Your task to perform on an android device: Go to Reddit.com Image 0: 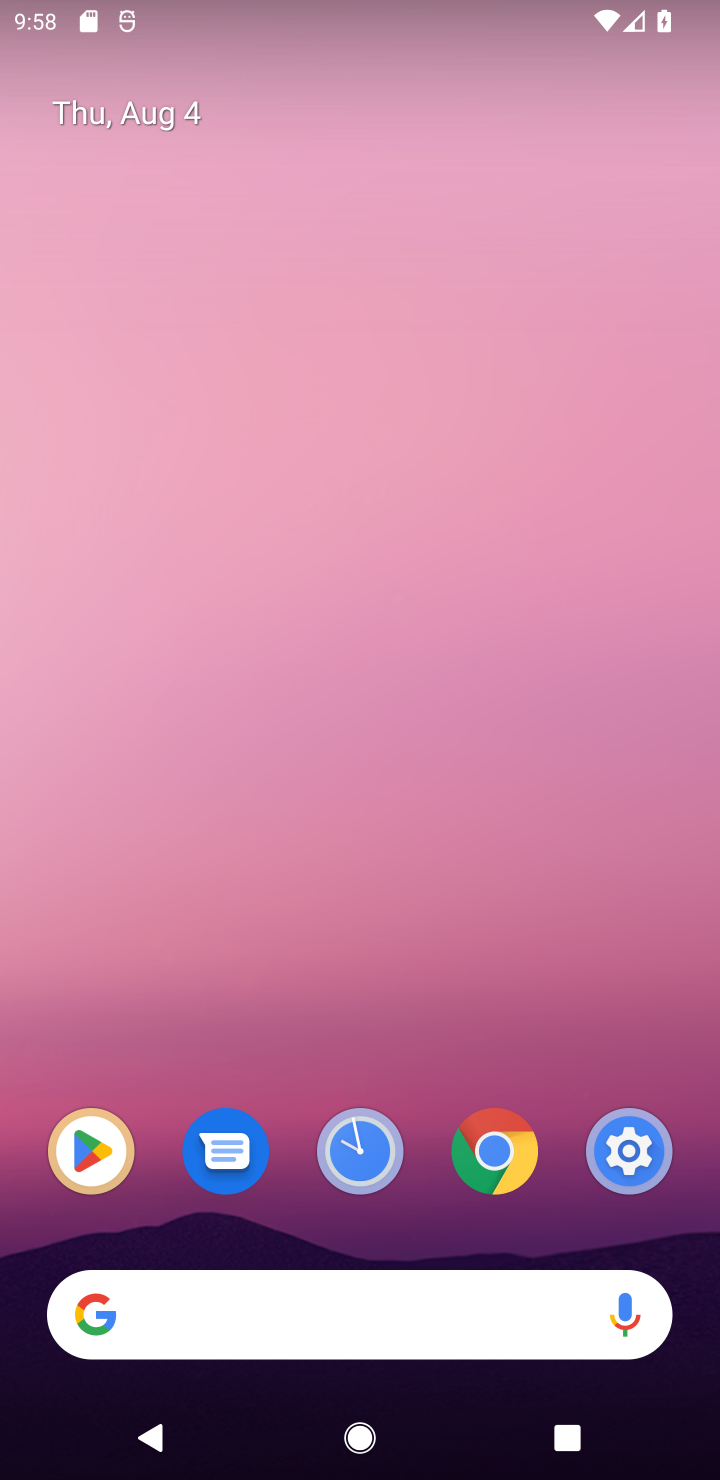
Step 0: click (82, 1314)
Your task to perform on an android device: Go to Reddit.com Image 1: 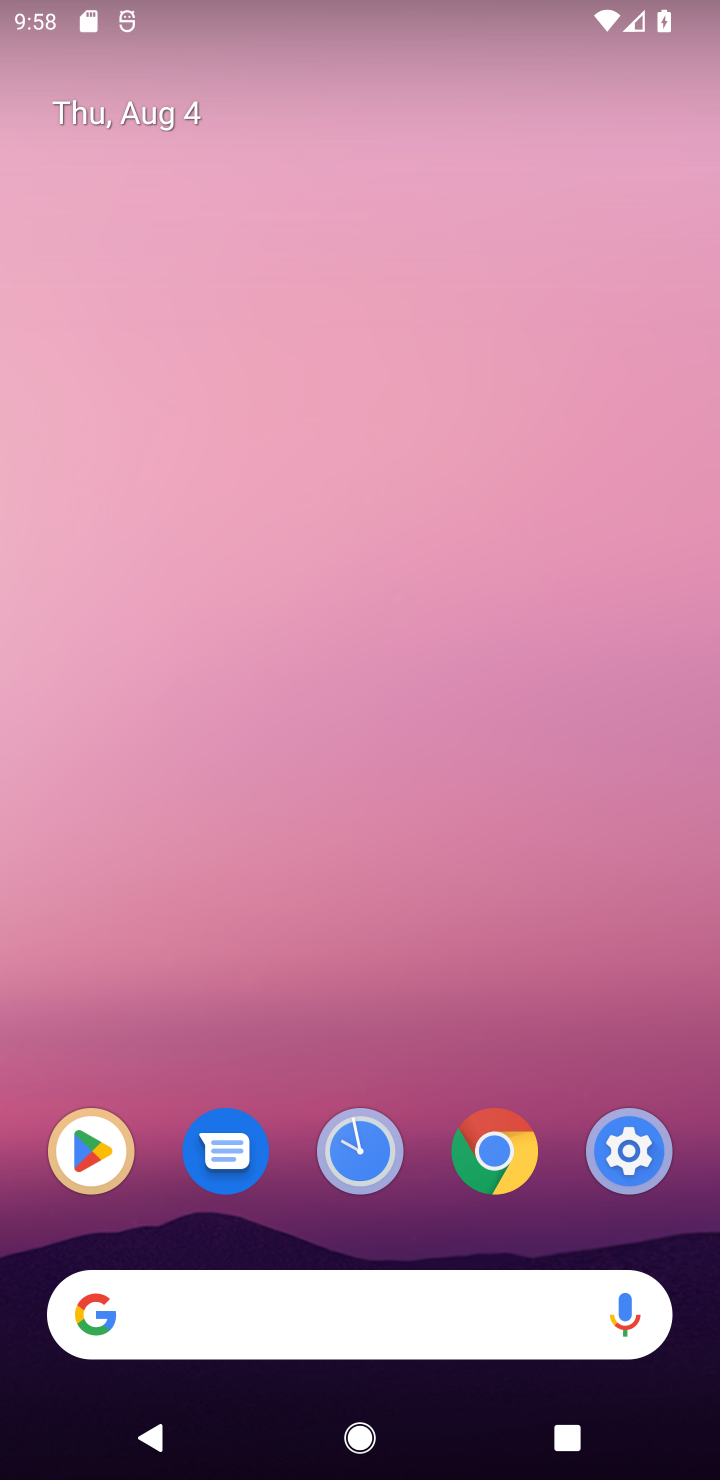
Step 1: click (84, 1317)
Your task to perform on an android device: Go to Reddit.com Image 2: 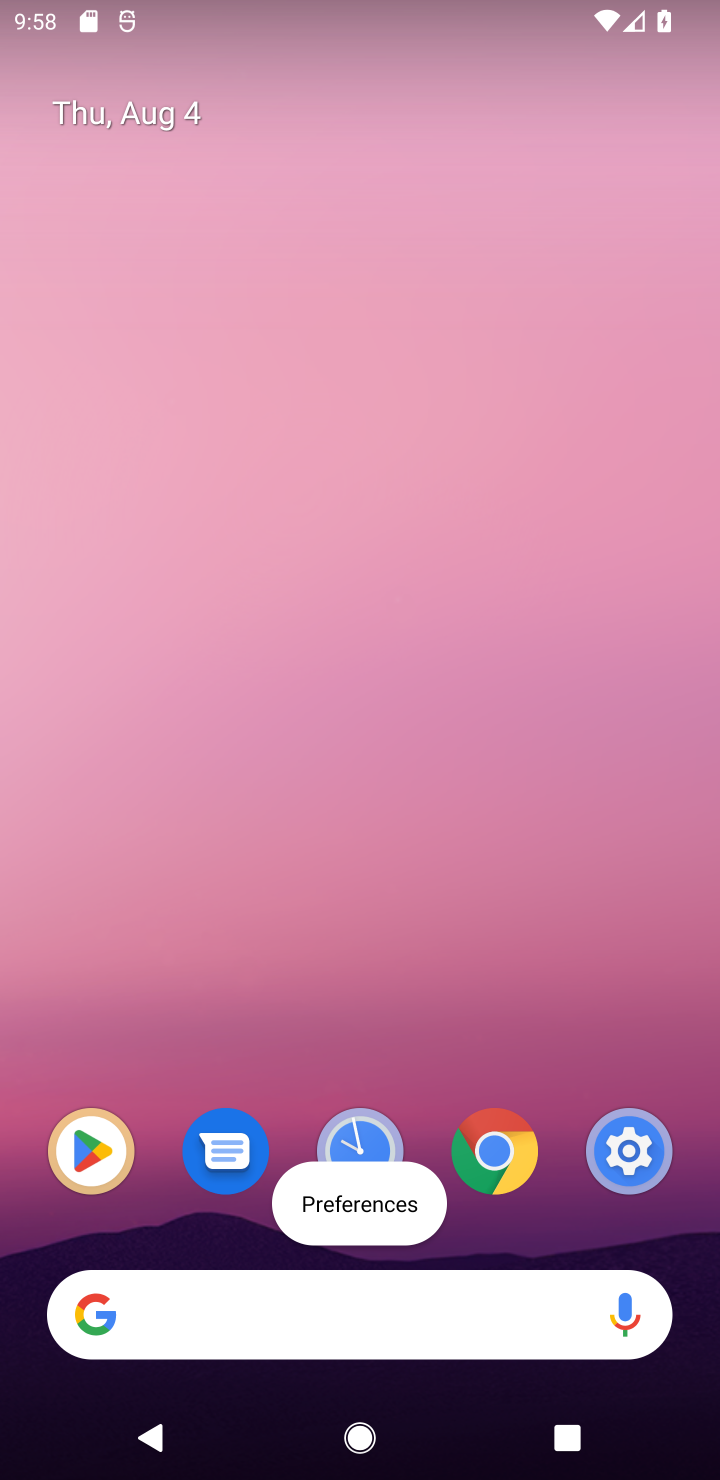
Step 2: click (110, 1317)
Your task to perform on an android device: Go to Reddit.com Image 3: 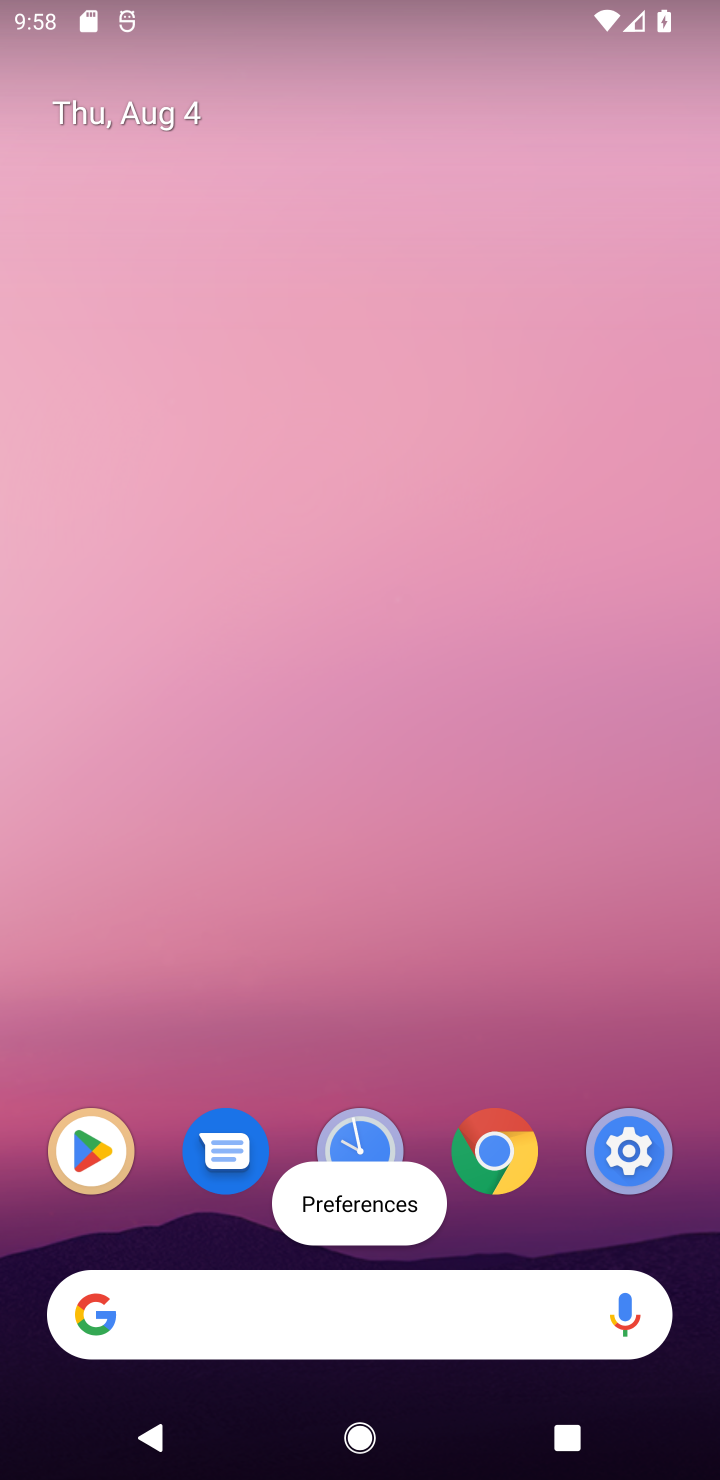
Step 3: click (86, 1325)
Your task to perform on an android device: Go to Reddit.com Image 4: 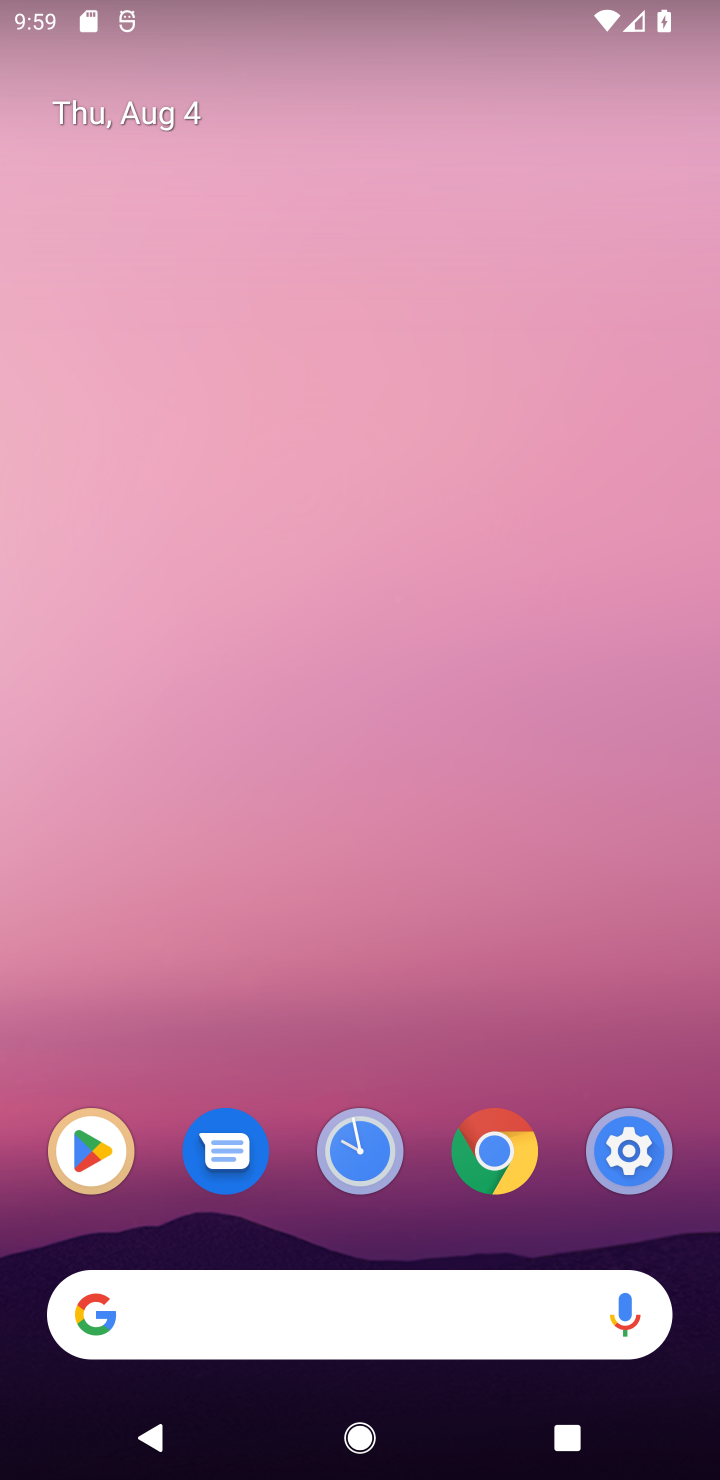
Step 4: click (85, 1309)
Your task to perform on an android device: Go to Reddit.com Image 5: 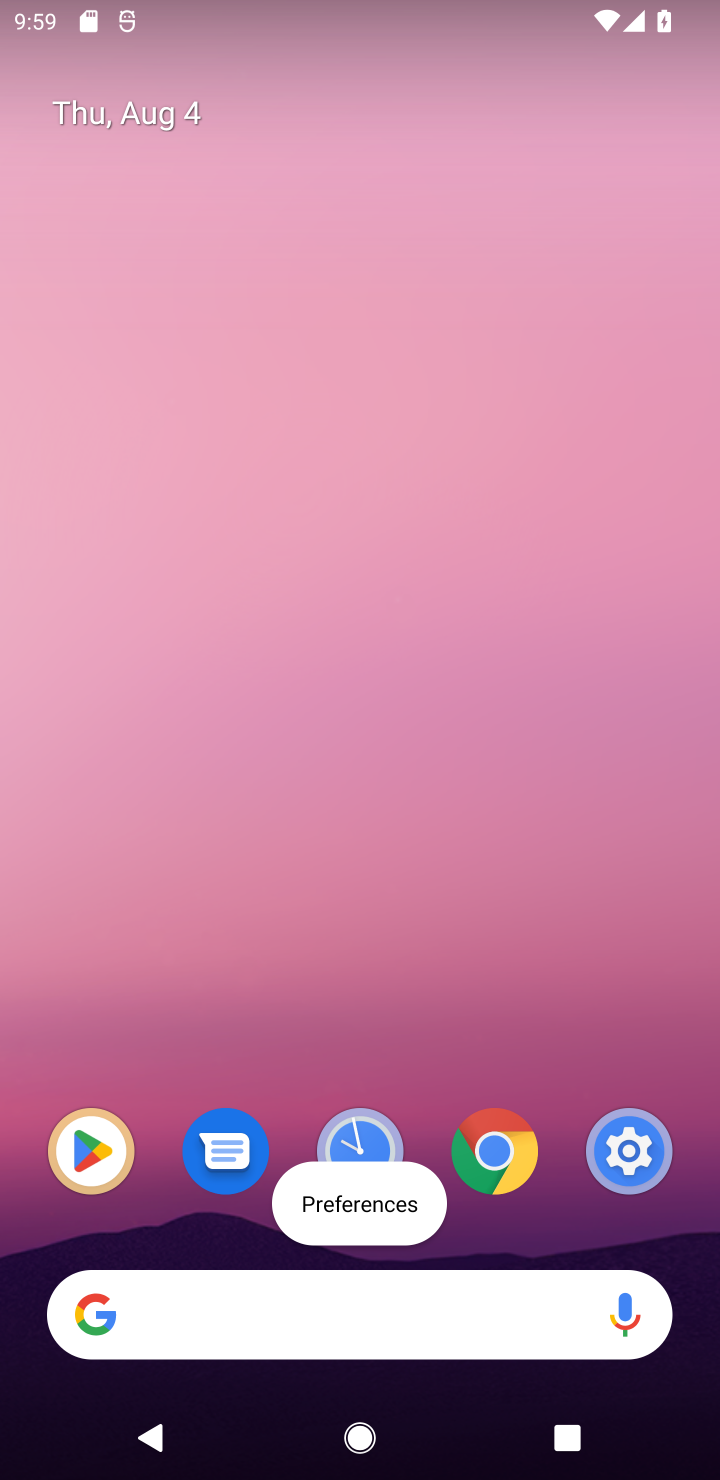
Step 5: drag from (508, 1238) to (337, 260)
Your task to perform on an android device: Go to Reddit.com Image 6: 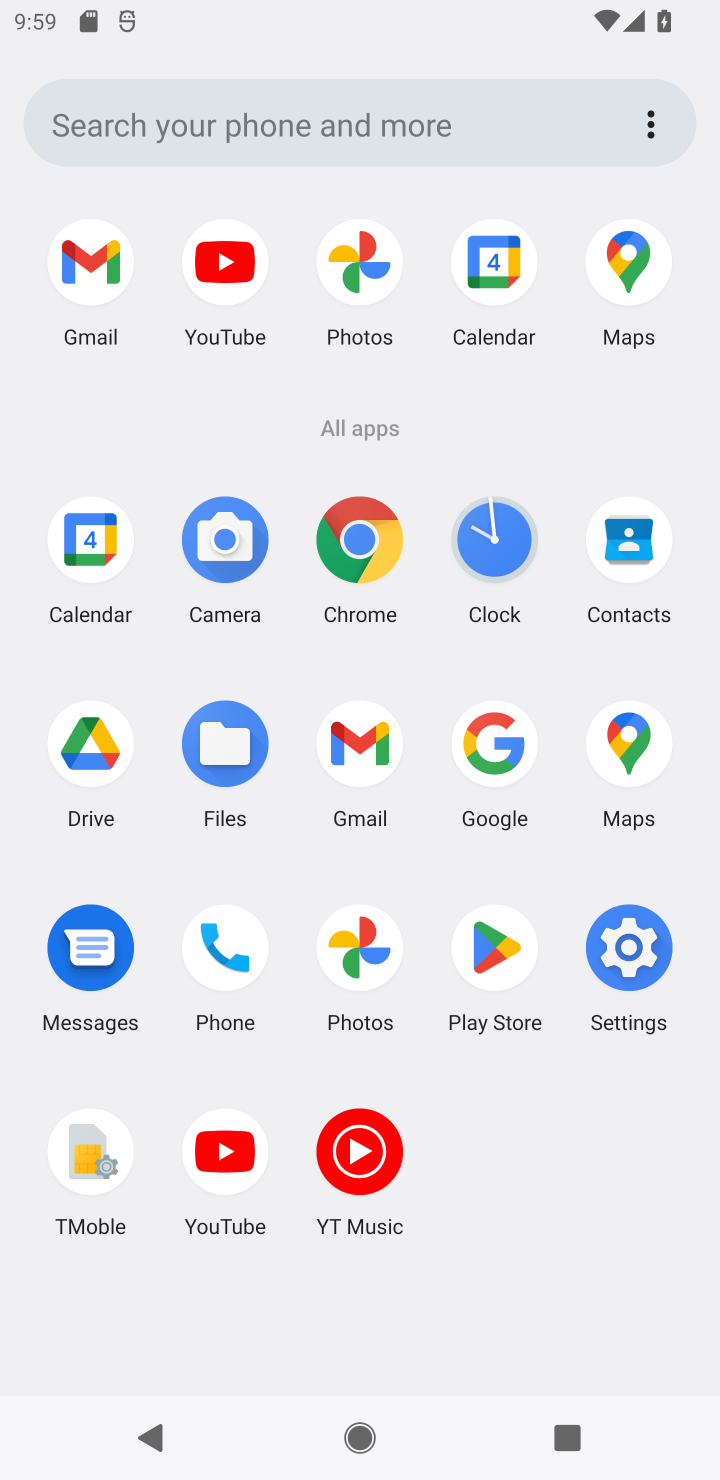
Step 6: click (515, 754)
Your task to perform on an android device: Go to Reddit.com Image 7: 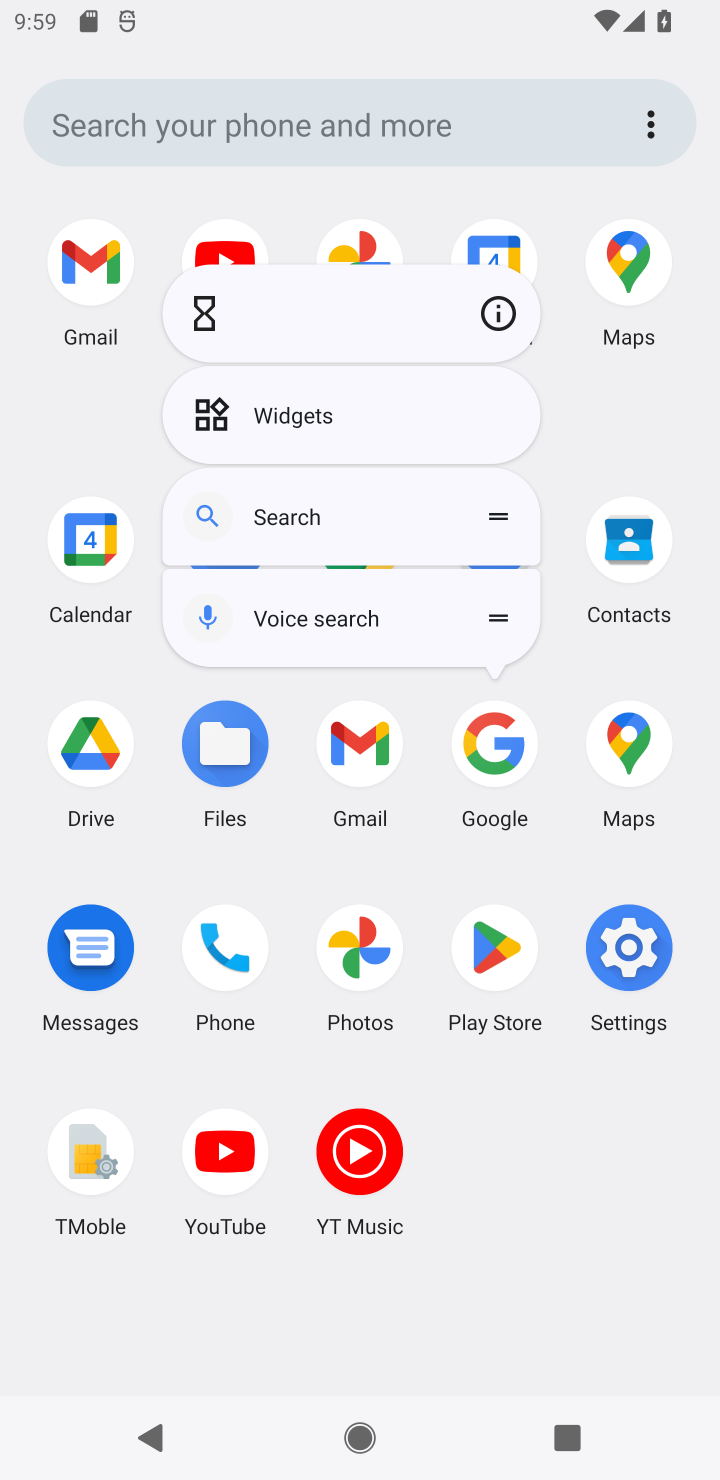
Step 7: click (488, 783)
Your task to perform on an android device: Go to Reddit.com Image 8: 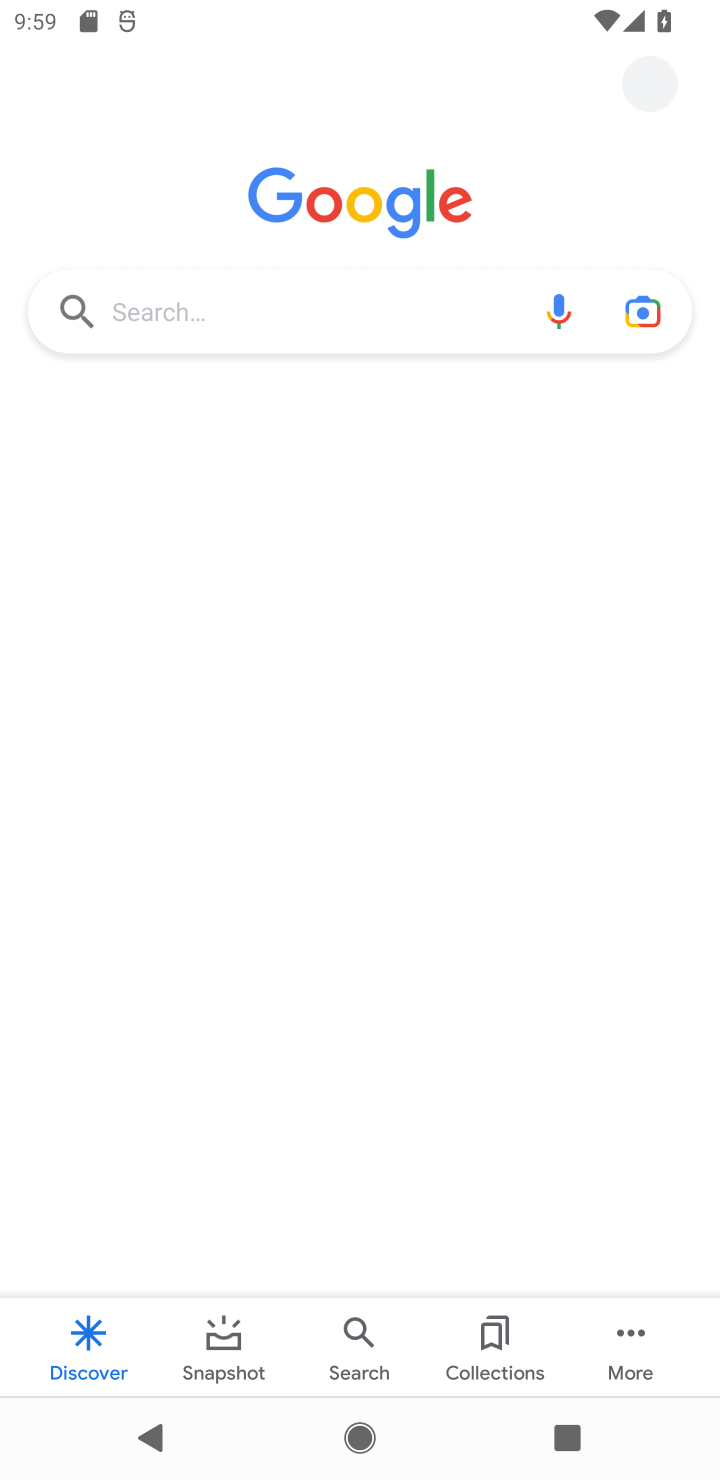
Step 8: click (277, 331)
Your task to perform on an android device: Go to Reddit.com Image 9: 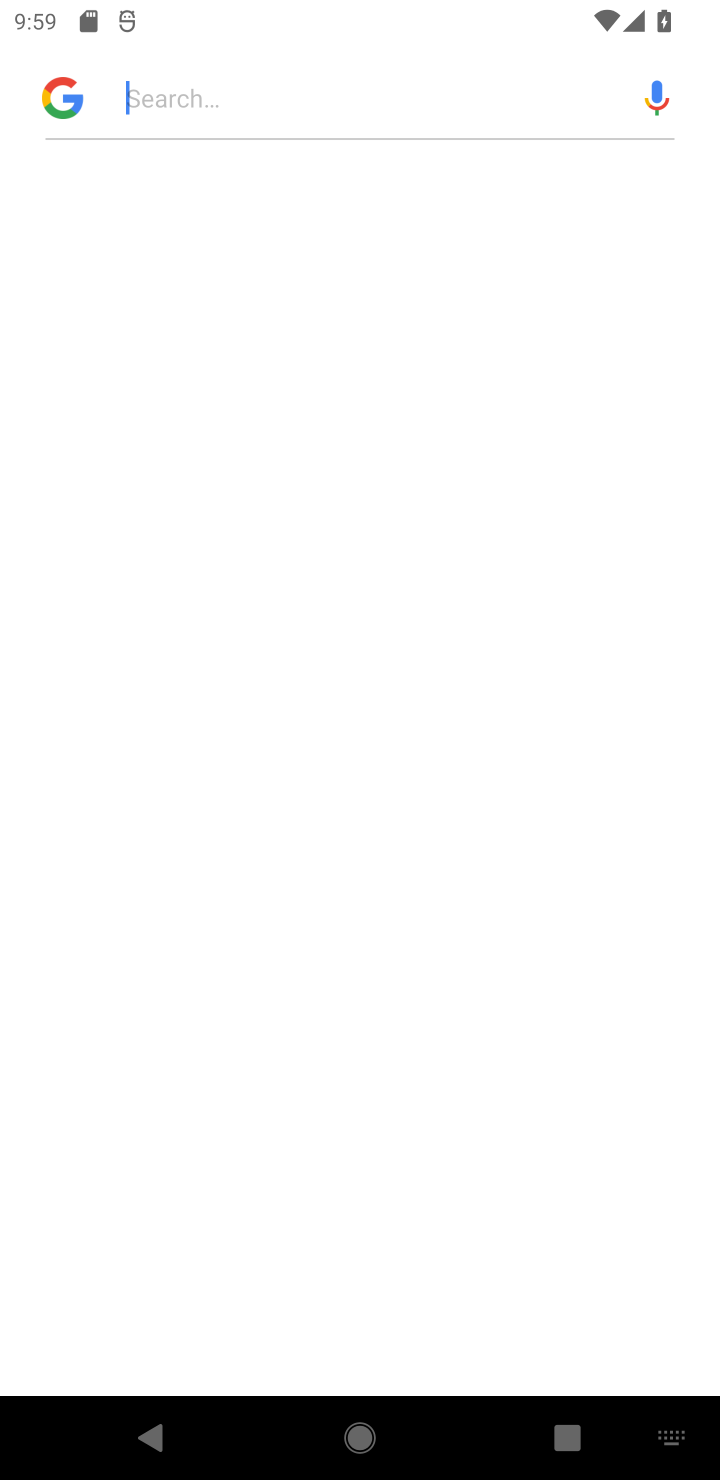
Step 9: click (279, 89)
Your task to perform on an android device: Go to Reddit.com Image 10: 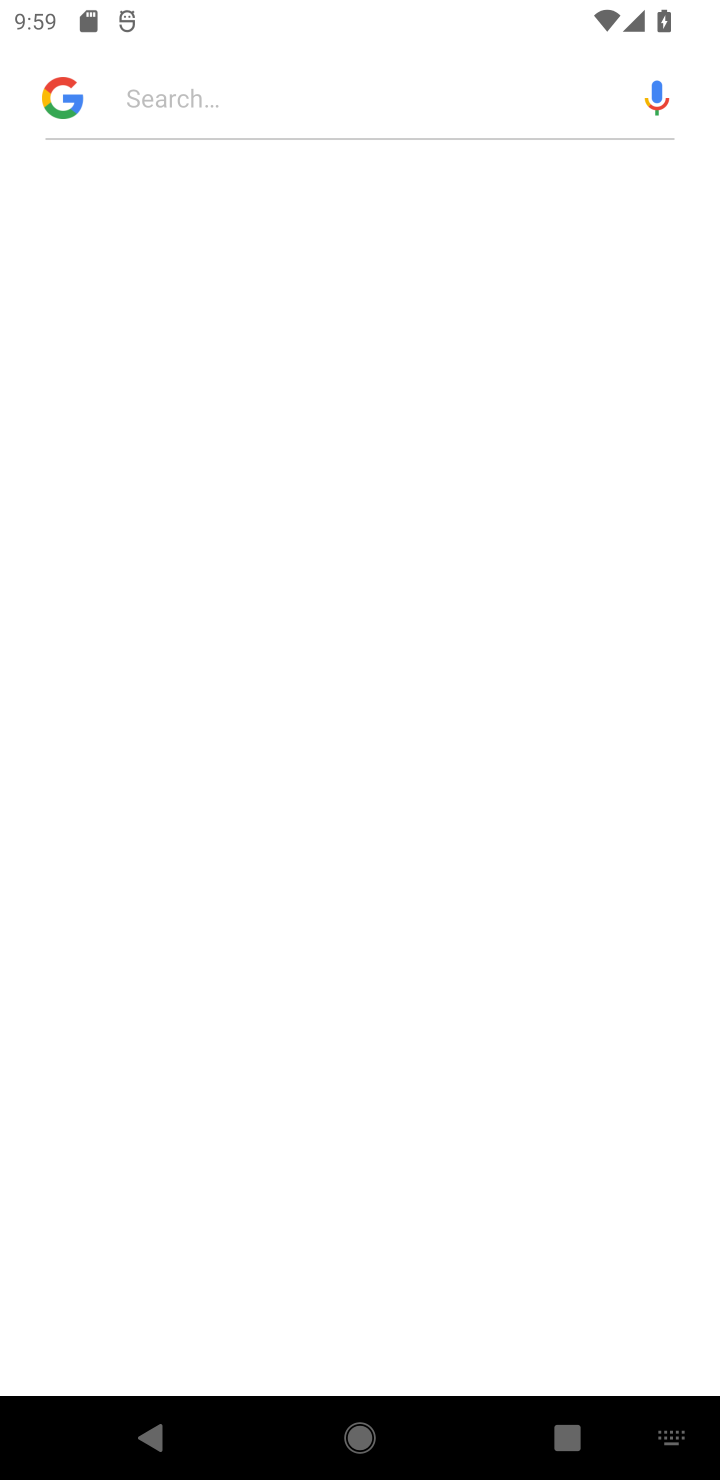
Step 10: type "Reddit.com"
Your task to perform on an android device: Go to Reddit.com Image 11: 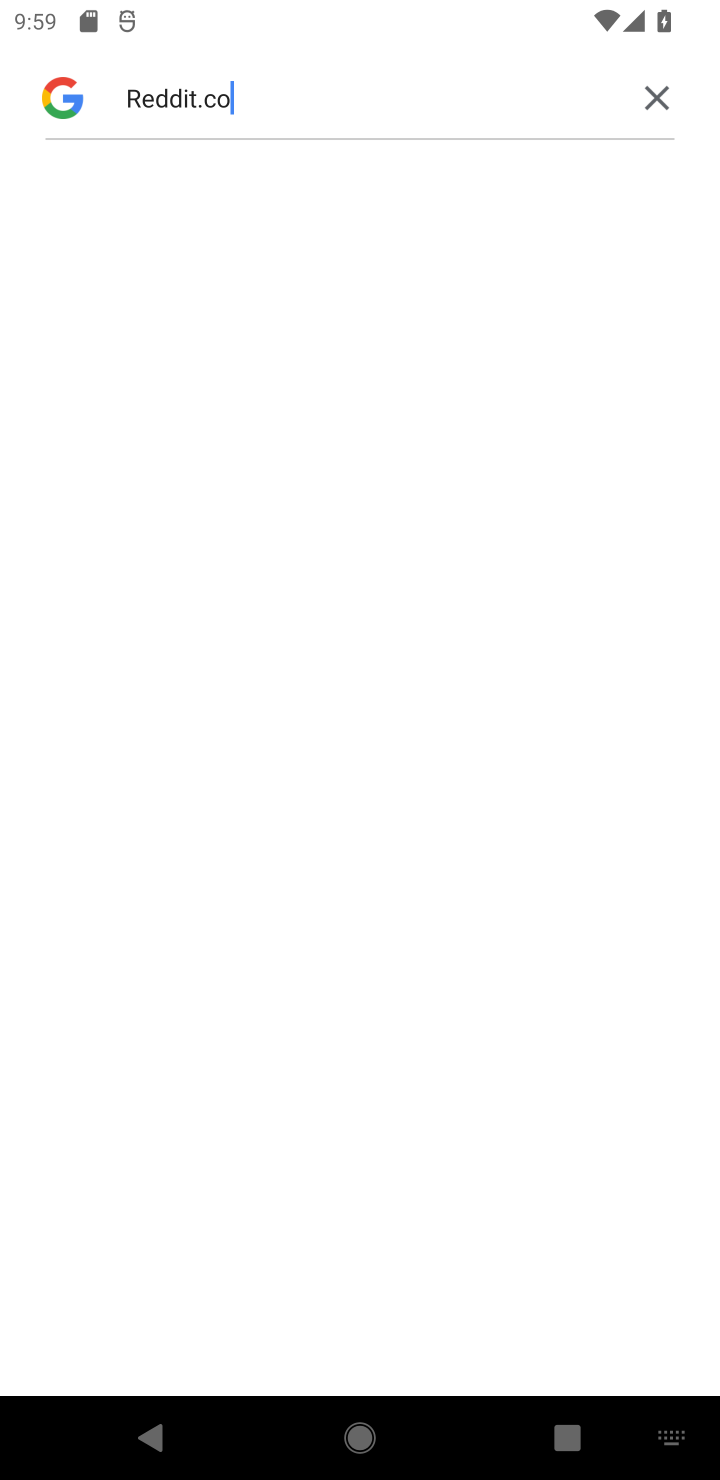
Step 11: press enter
Your task to perform on an android device: Go to Reddit.com Image 12: 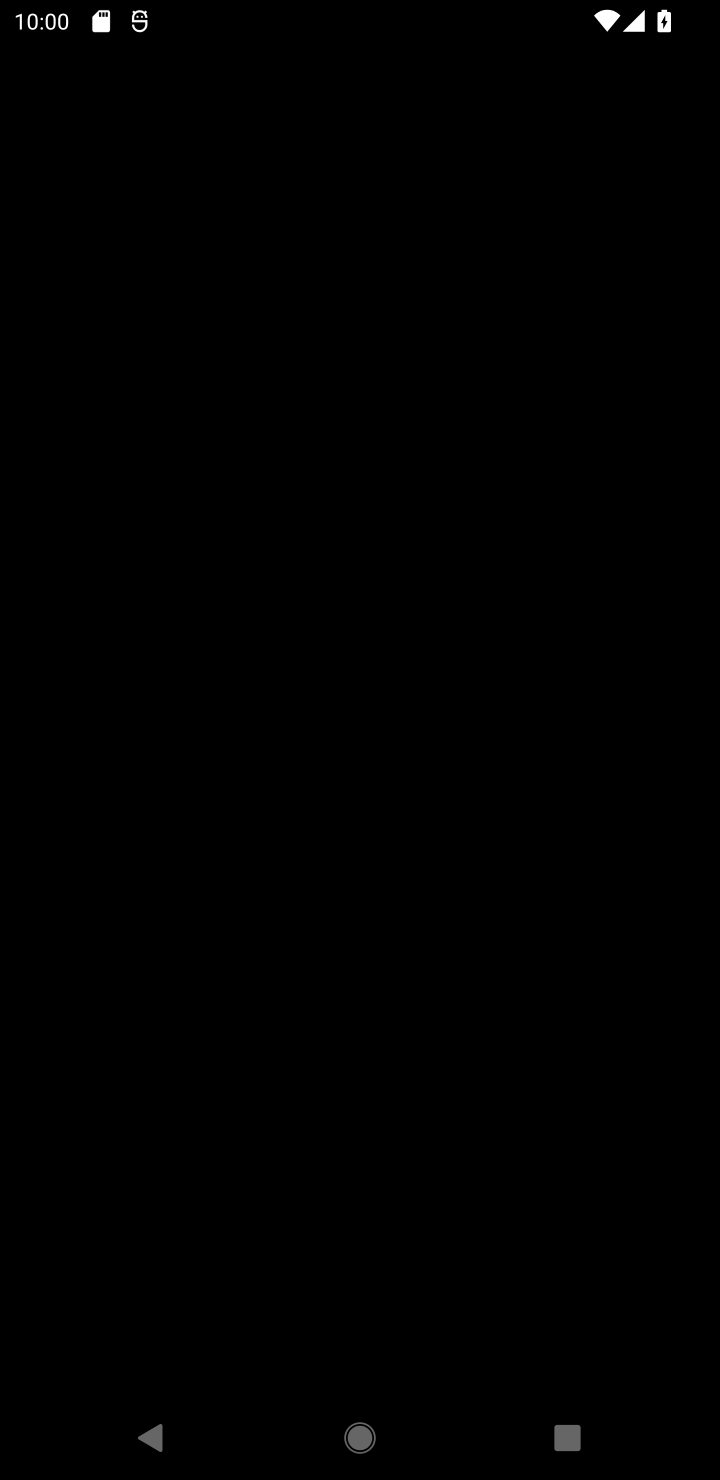
Step 12: task complete